Your task to perform on an android device: Check the news Image 0: 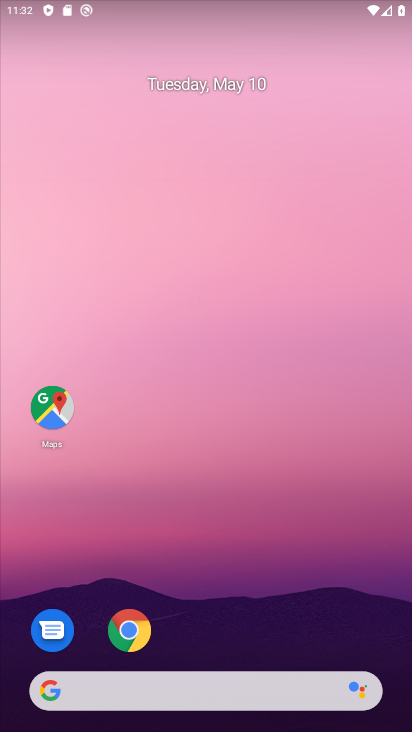
Step 0: click (134, 626)
Your task to perform on an android device: Check the news Image 1: 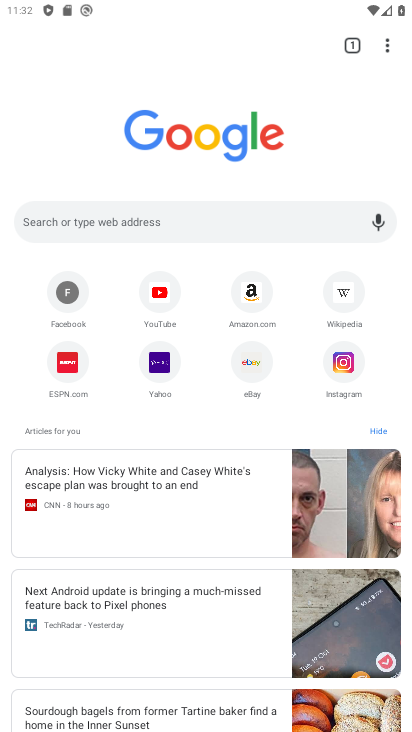
Step 1: click (181, 224)
Your task to perform on an android device: Check the news Image 2: 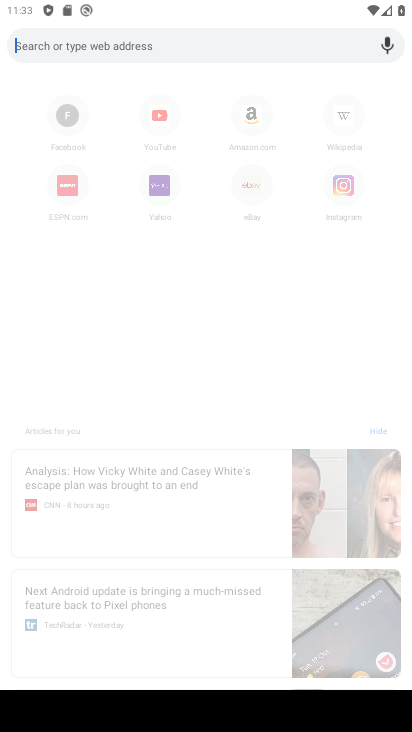
Step 2: type "news"
Your task to perform on an android device: Check the news Image 3: 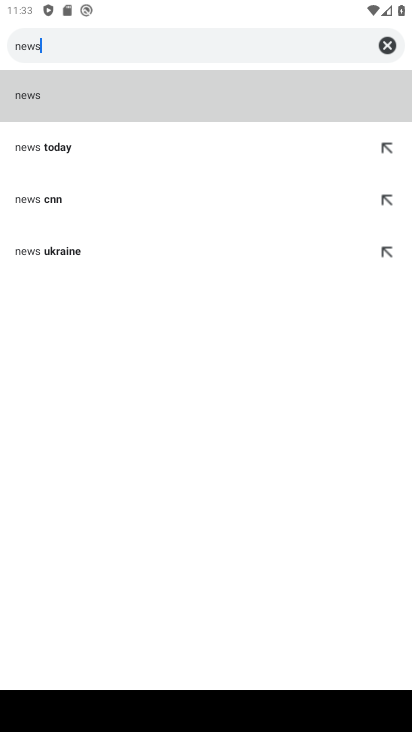
Step 3: click (34, 95)
Your task to perform on an android device: Check the news Image 4: 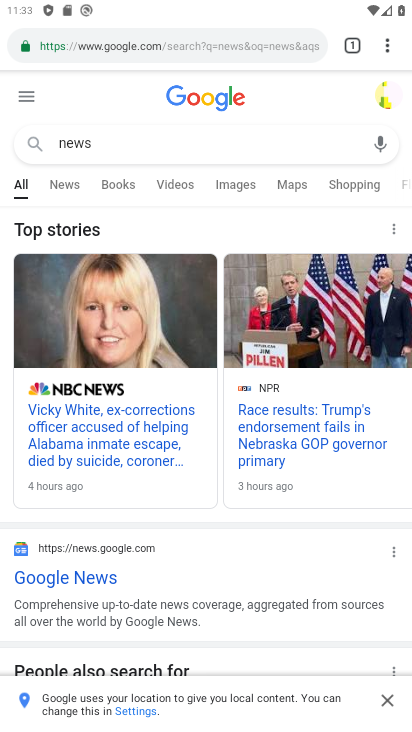
Step 4: click (81, 179)
Your task to perform on an android device: Check the news Image 5: 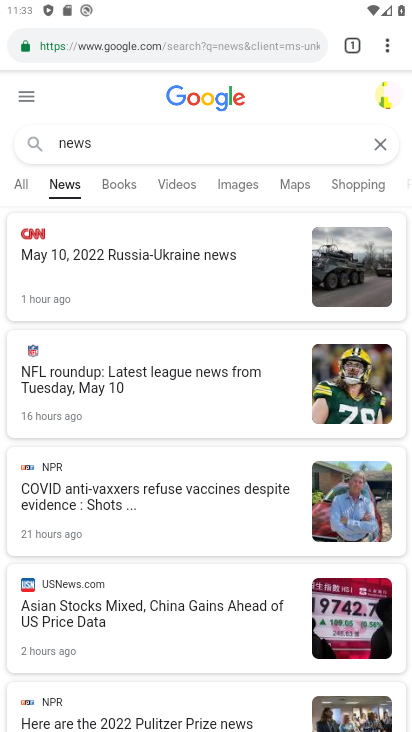
Step 5: task complete